Your task to perform on an android device: What's the weather? Image 0: 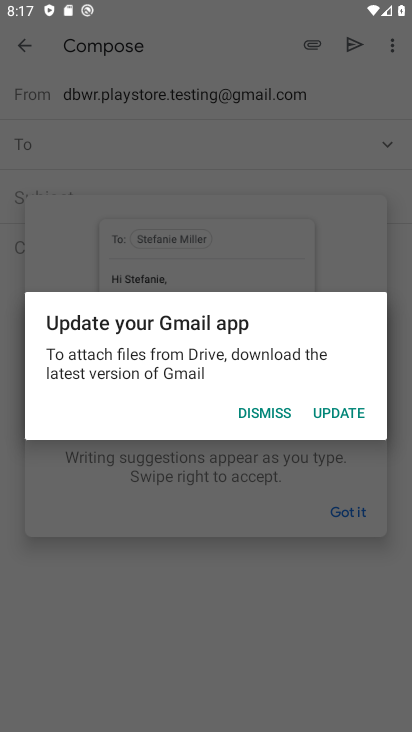
Step 0: press home button
Your task to perform on an android device: What's the weather? Image 1: 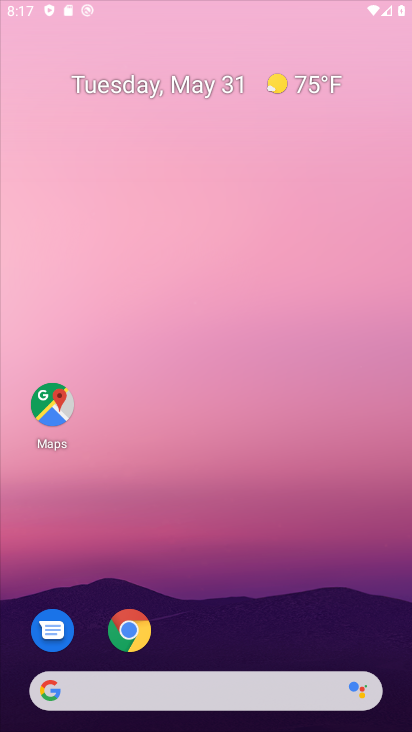
Step 1: drag from (208, 636) to (222, 176)
Your task to perform on an android device: What's the weather? Image 2: 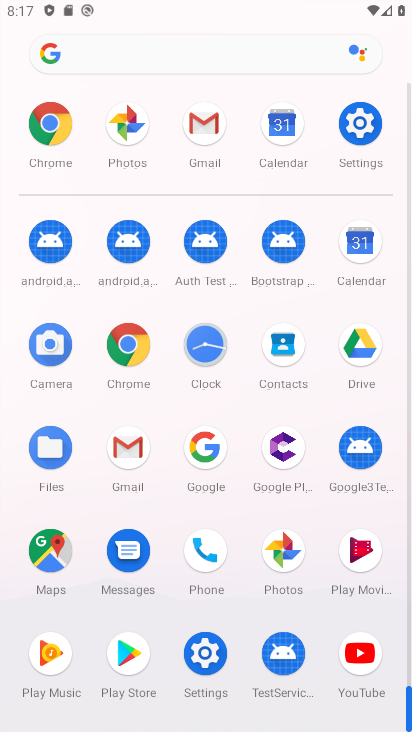
Step 2: click (204, 460)
Your task to perform on an android device: What's the weather? Image 3: 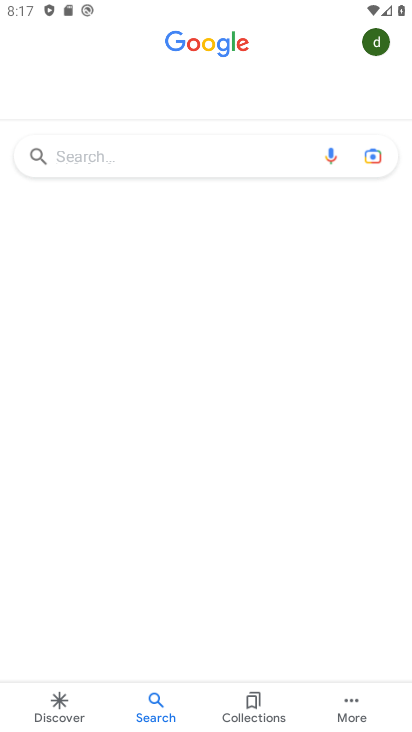
Step 3: click (191, 156)
Your task to perform on an android device: What's the weather? Image 4: 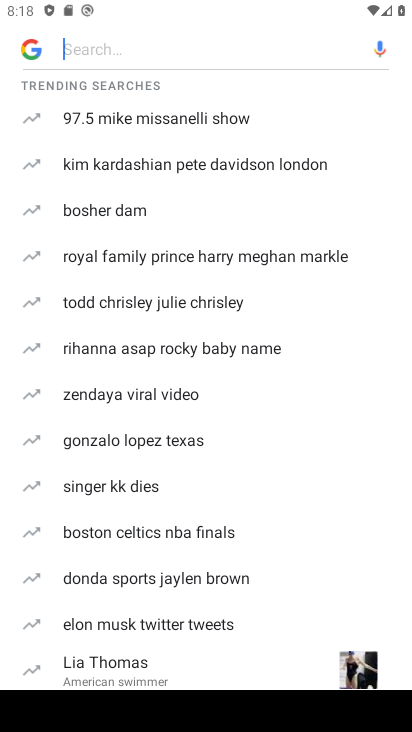
Step 4: type "weather"
Your task to perform on an android device: What's the weather? Image 5: 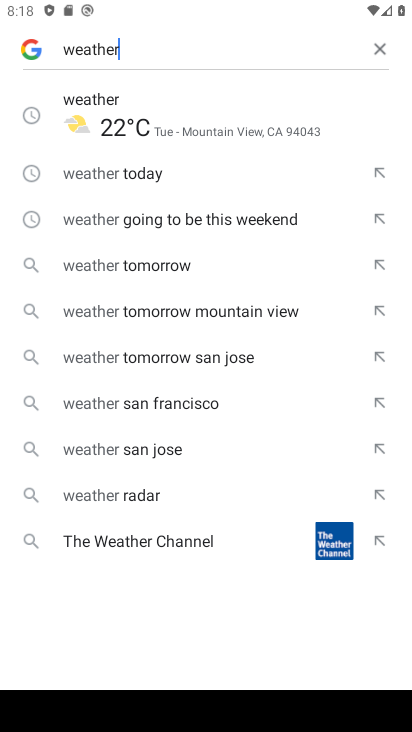
Step 5: click (251, 110)
Your task to perform on an android device: What's the weather? Image 6: 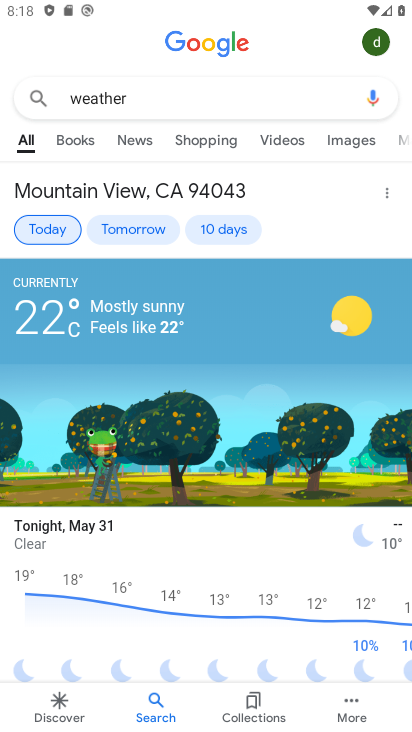
Step 6: task complete